Your task to perform on an android device: Open Google Chrome and open the bookmarks view Image 0: 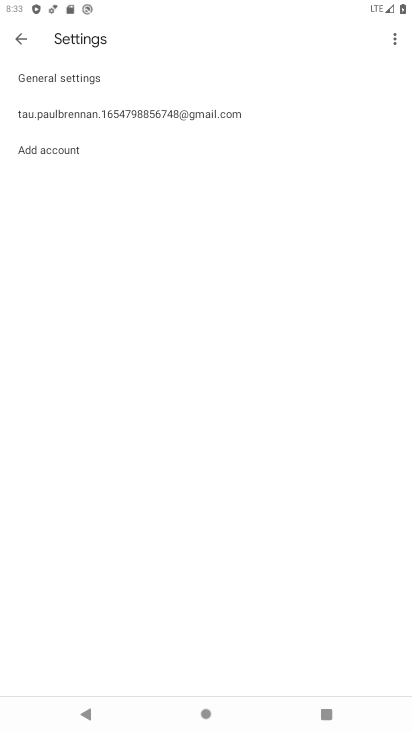
Step 0: press home button
Your task to perform on an android device: Open Google Chrome and open the bookmarks view Image 1: 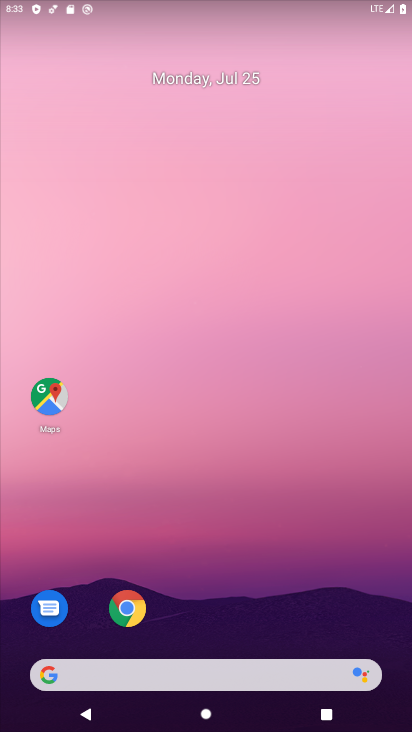
Step 1: click (125, 618)
Your task to perform on an android device: Open Google Chrome and open the bookmarks view Image 2: 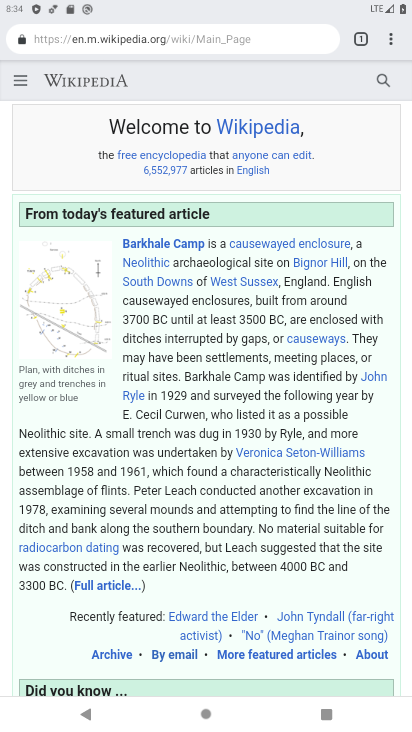
Step 2: click (392, 41)
Your task to perform on an android device: Open Google Chrome and open the bookmarks view Image 3: 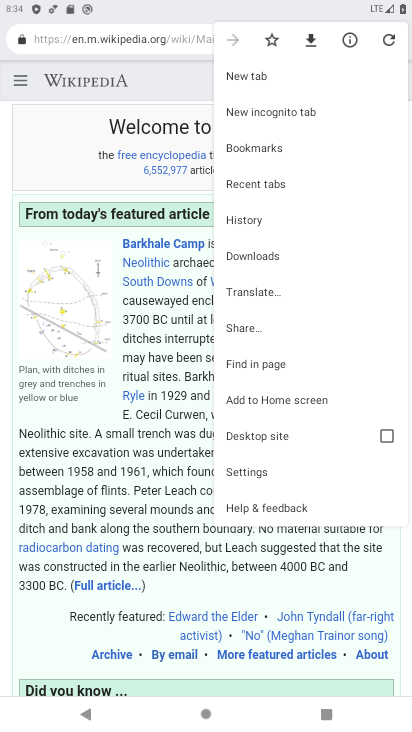
Step 3: click (254, 143)
Your task to perform on an android device: Open Google Chrome and open the bookmarks view Image 4: 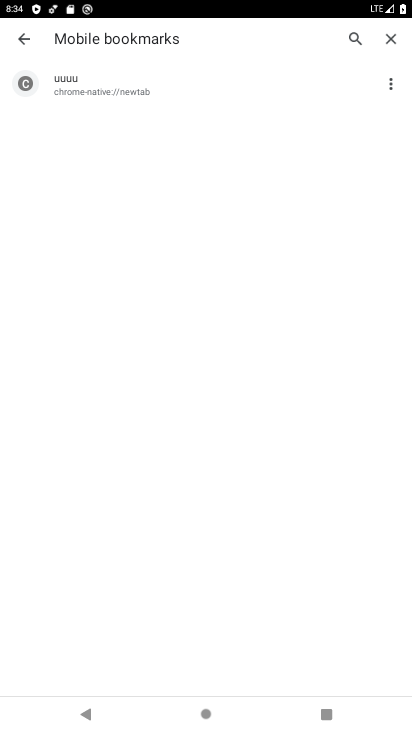
Step 4: click (89, 89)
Your task to perform on an android device: Open Google Chrome and open the bookmarks view Image 5: 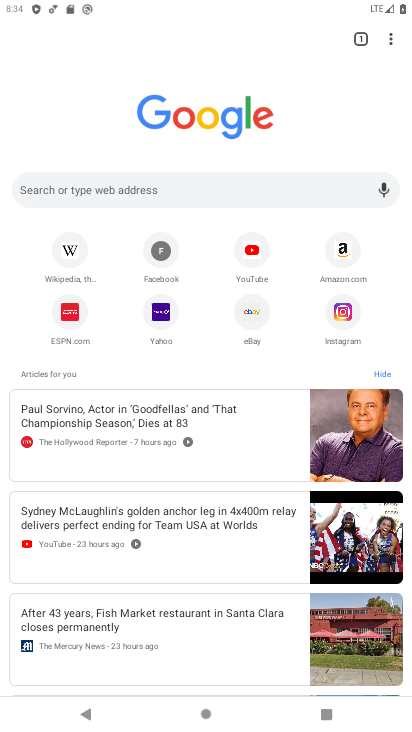
Step 5: task complete